Your task to perform on an android device: check out phone information Image 0: 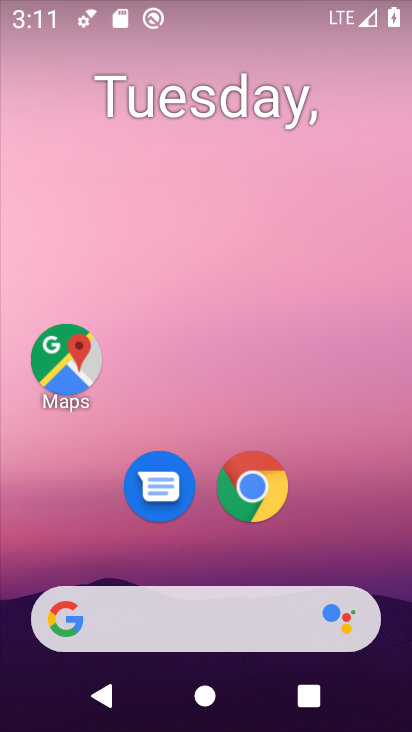
Step 0: drag from (211, 546) to (228, 40)
Your task to perform on an android device: check out phone information Image 1: 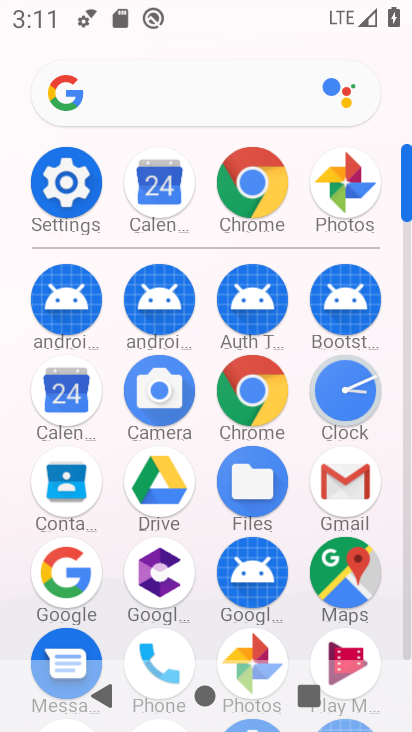
Step 1: click (65, 176)
Your task to perform on an android device: check out phone information Image 2: 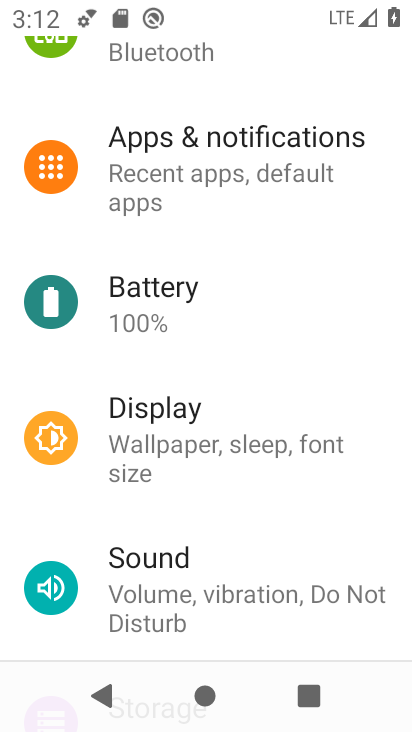
Step 2: drag from (223, 581) to (231, 43)
Your task to perform on an android device: check out phone information Image 3: 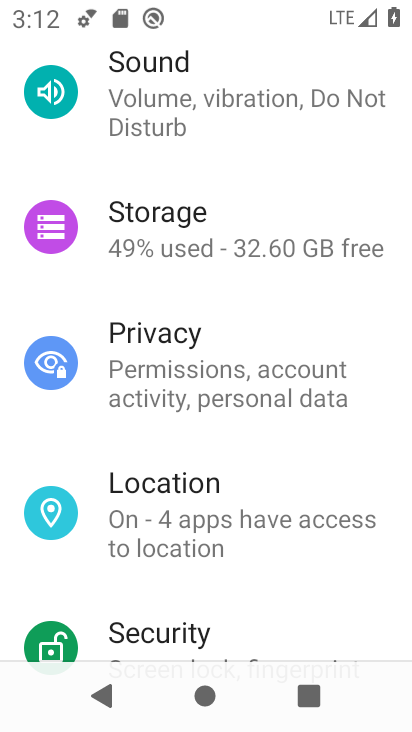
Step 3: drag from (196, 481) to (247, 165)
Your task to perform on an android device: check out phone information Image 4: 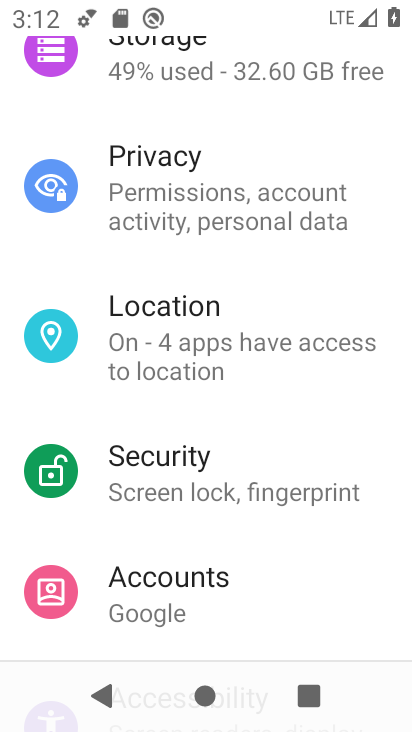
Step 4: drag from (184, 623) to (219, 156)
Your task to perform on an android device: check out phone information Image 5: 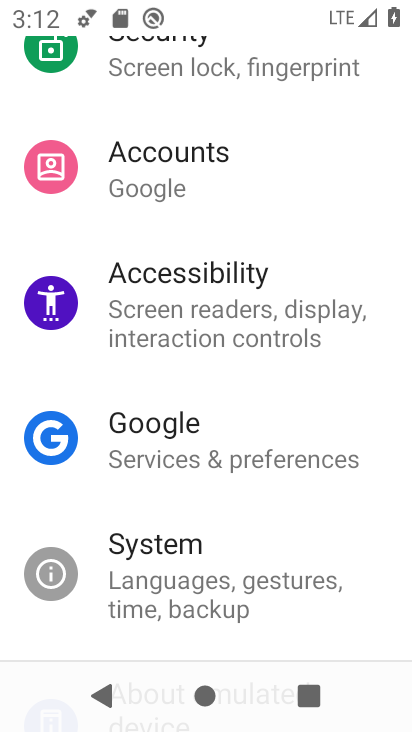
Step 5: drag from (222, 572) to (251, 66)
Your task to perform on an android device: check out phone information Image 6: 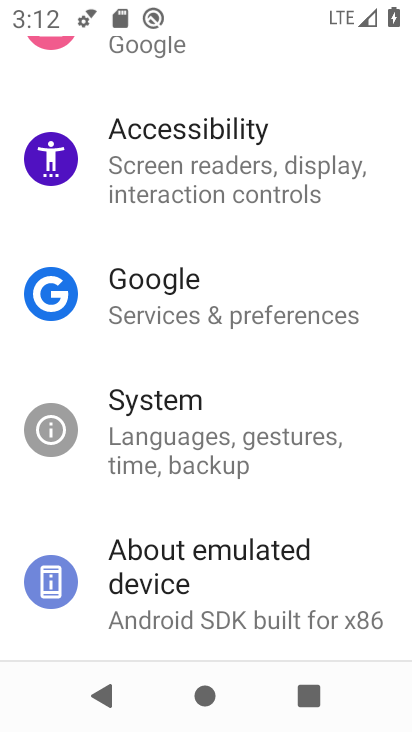
Step 6: click (220, 579)
Your task to perform on an android device: check out phone information Image 7: 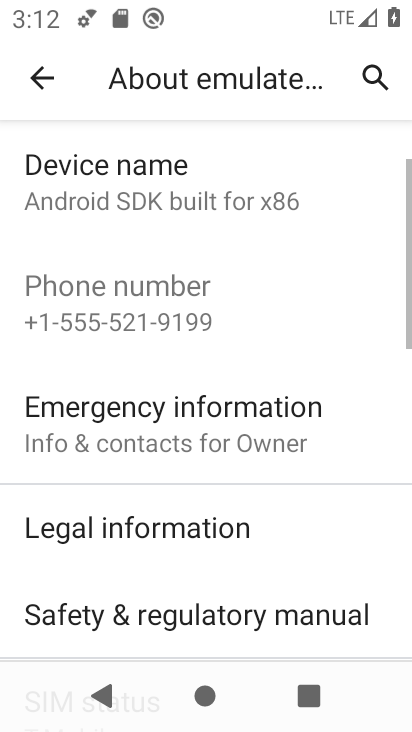
Step 7: task complete